Your task to perform on an android device: set default search engine in the chrome app Image 0: 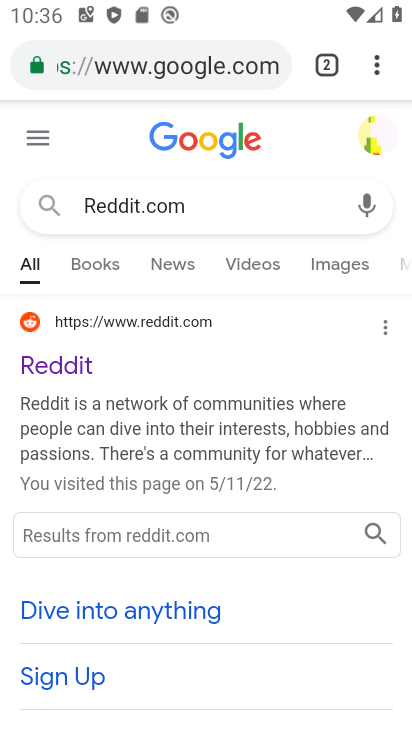
Step 0: click (363, 89)
Your task to perform on an android device: set default search engine in the chrome app Image 1: 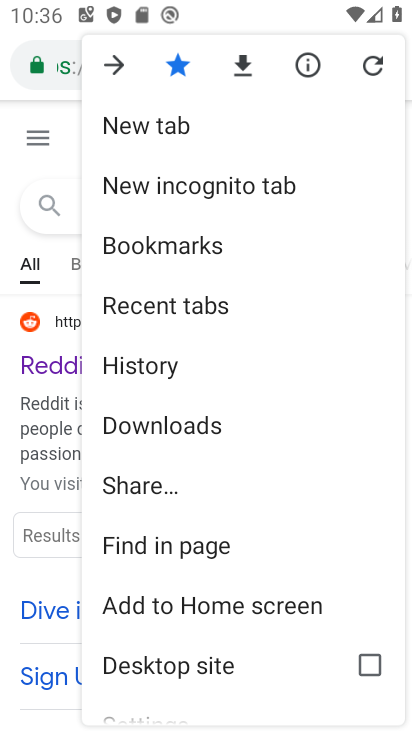
Step 1: click (150, 707)
Your task to perform on an android device: set default search engine in the chrome app Image 2: 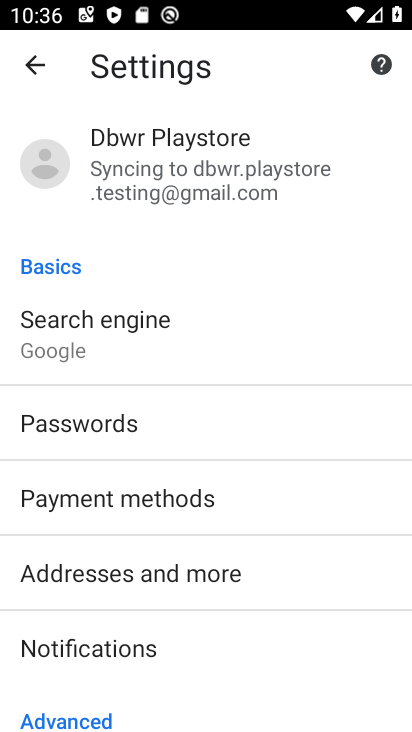
Step 2: click (174, 309)
Your task to perform on an android device: set default search engine in the chrome app Image 3: 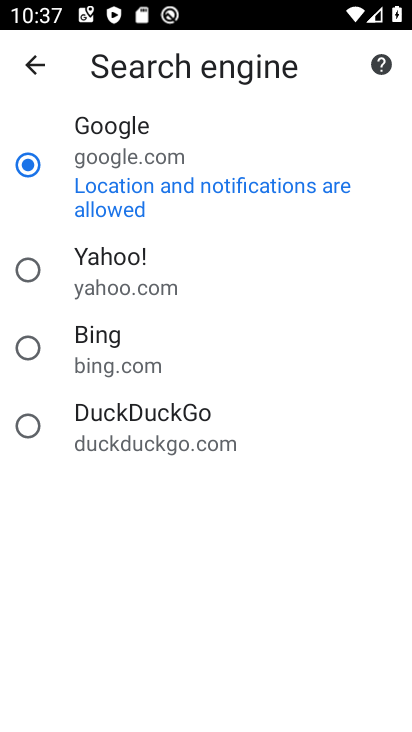
Step 3: task complete